Your task to perform on an android device: Open accessibility settings Image 0: 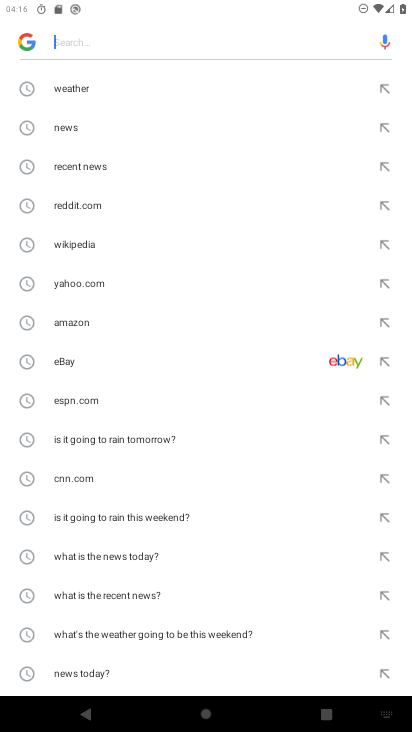
Step 0: press home button
Your task to perform on an android device: Open accessibility settings Image 1: 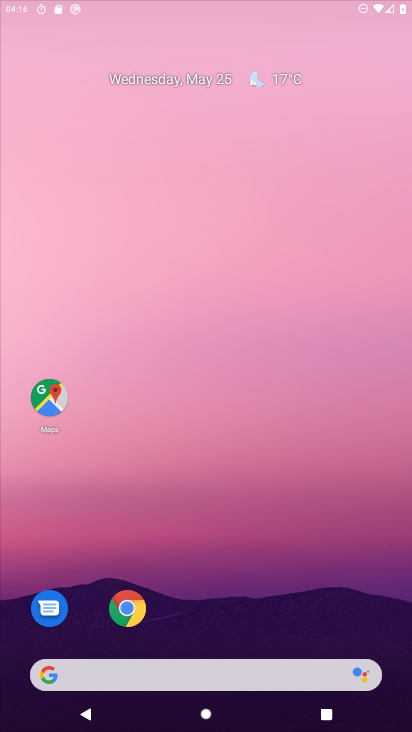
Step 1: drag from (235, 556) to (242, 105)
Your task to perform on an android device: Open accessibility settings Image 2: 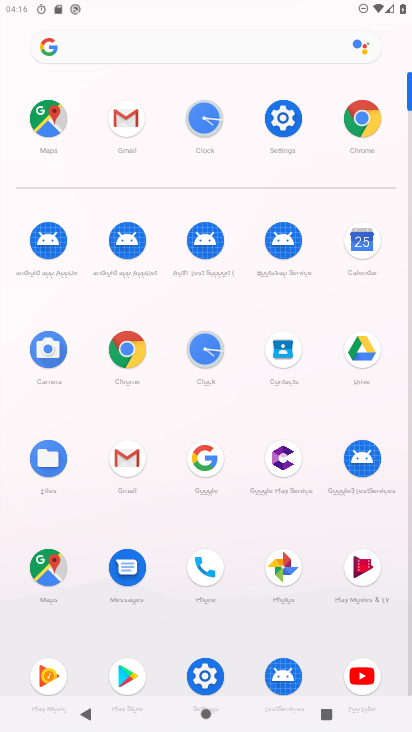
Step 2: click (292, 105)
Your task to perform on an android device: Open accessibility settings Image 3: 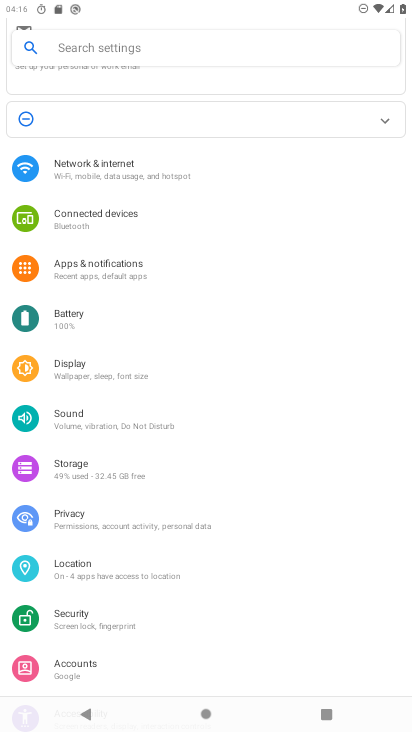
Step 3: drag from (179, 583) to (240, 244)
Your task to perform on an android device: Open accessibility settings Image 4: 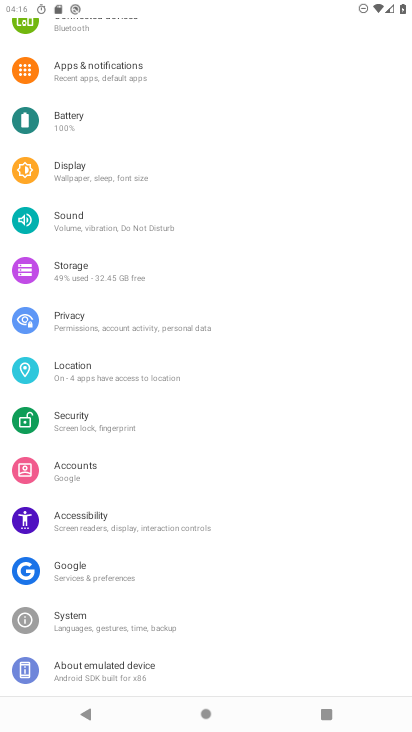
Step 4: click (112, 513)
Your task to perform on an android device: Open accessibility settings Image 5: 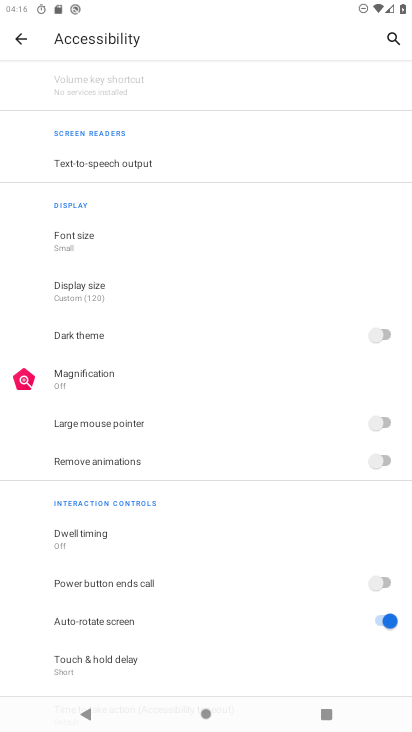
Step 5: task complete